Your task to perform on an android device: Is it going to rain tomorrow? Image 0: 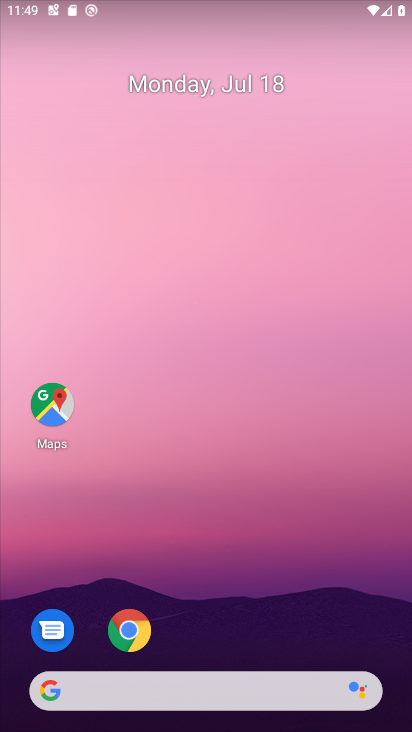
Step 0: click (175, 696)
Your task to perform on an android device: Is it going to rain tomorrow? Image 1: 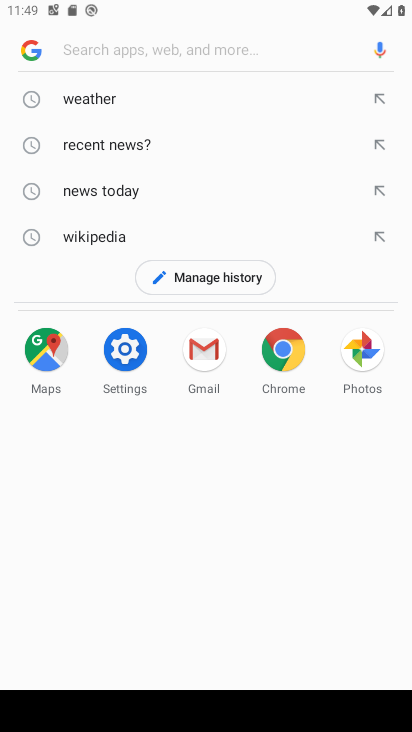
Step 1: click (99, 92)
Your task to perform on an android device: Is it going to rain tomorrow? Image 2: 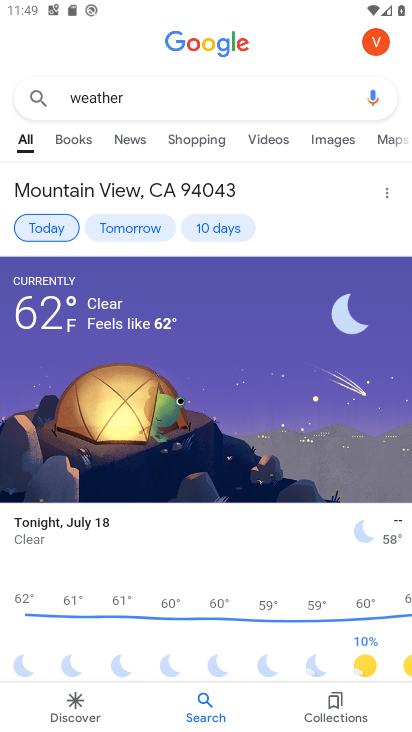
Step 2: click (150, 232)
Your task to perform on an android device: Is it going to rain tomorrow? Image 3: 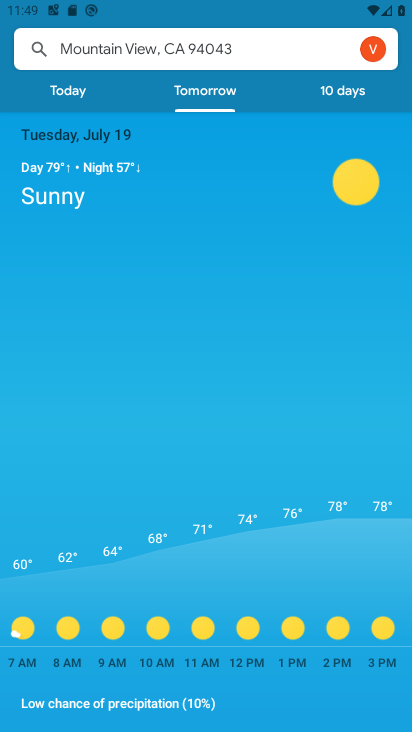
Step 3: task complete